Your task to perform on an android device: Open calendar and show me the first week of next month Image 0: 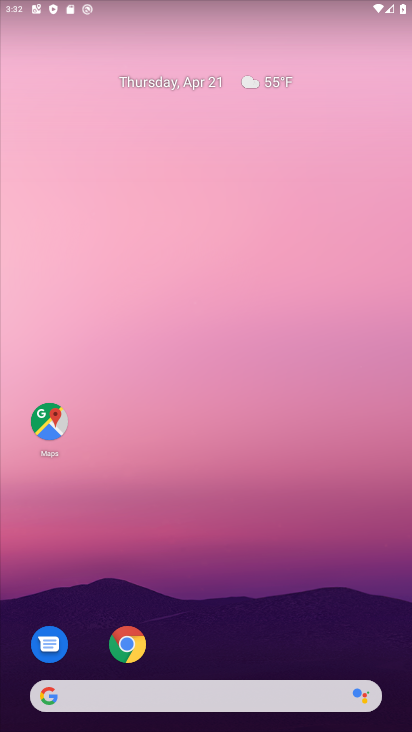
Step 0: drag from (193, 602) to (109, 50)
Your task to perform on an android device: Open calendar and show me the first week of next month Image 1: 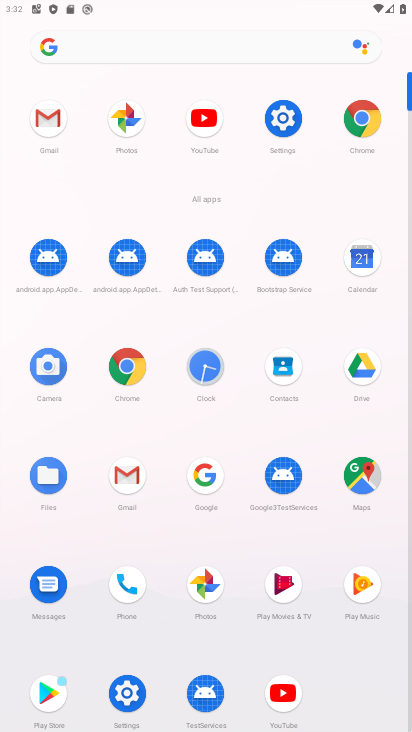
Step 1: click (367, 265)
Your task to perform on an android device: Open calendar and show me the first week of next month Image 2: 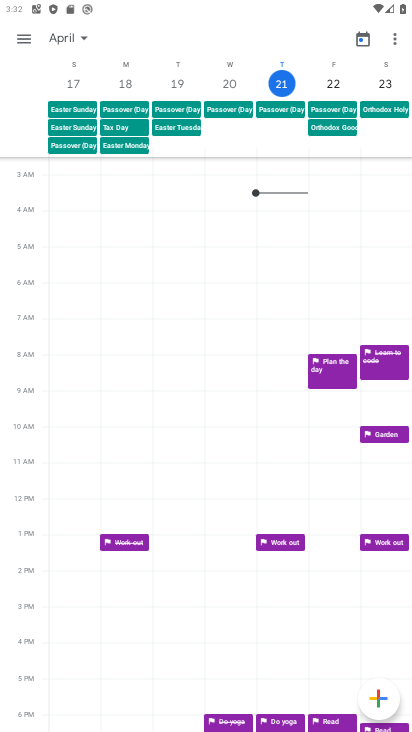
Step 2: task complete